Your task to perform on an android device: Do I have any events this weekend? Image 0: 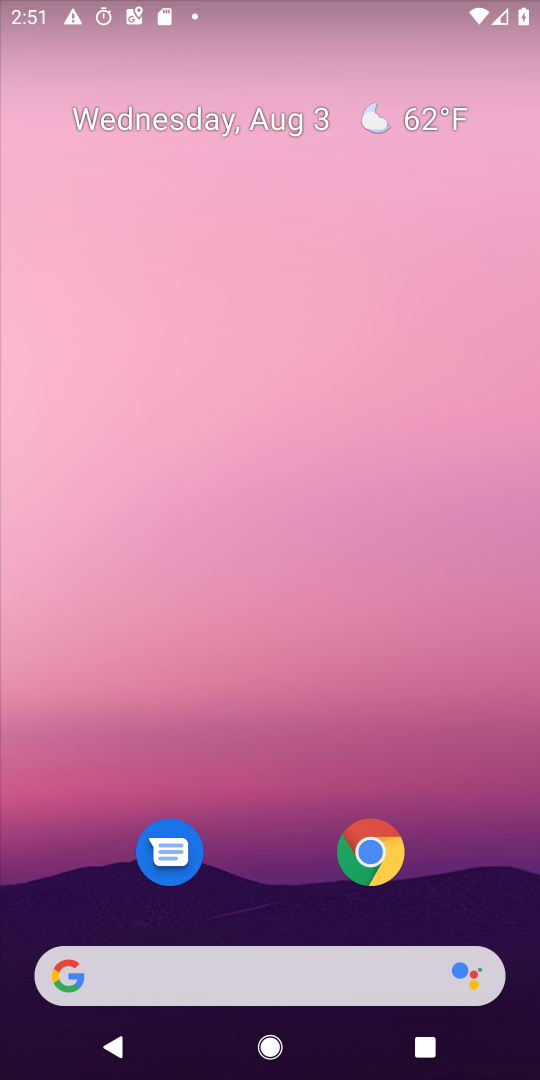
Step 0: drag from (470, 872) to (231, 70)
Your task to perform on an android device: Do I have any events this weekend? Image 1: 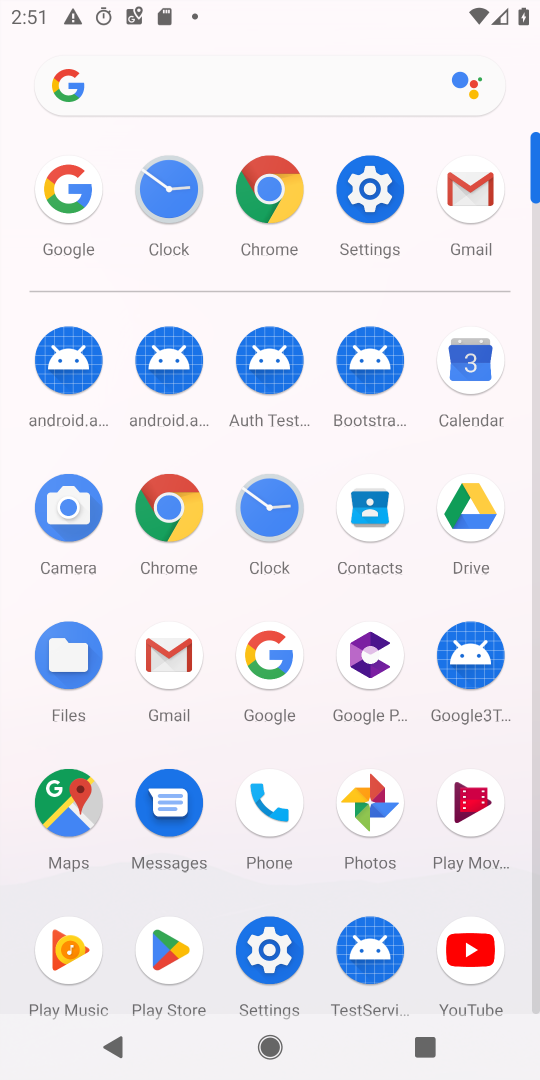
Step 1: click (463, 366)
Your task to perform on an android device: Do I have any events this weekend? Image 2: 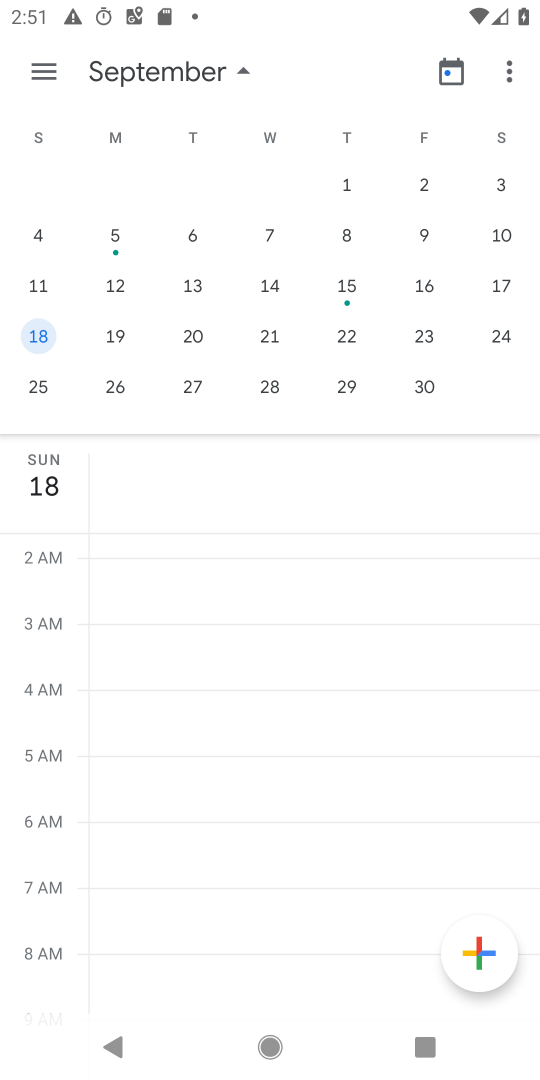
Step 2: task complete